Your task to perform on an android device: remove spam from my inbox in the gmail app Image 0: 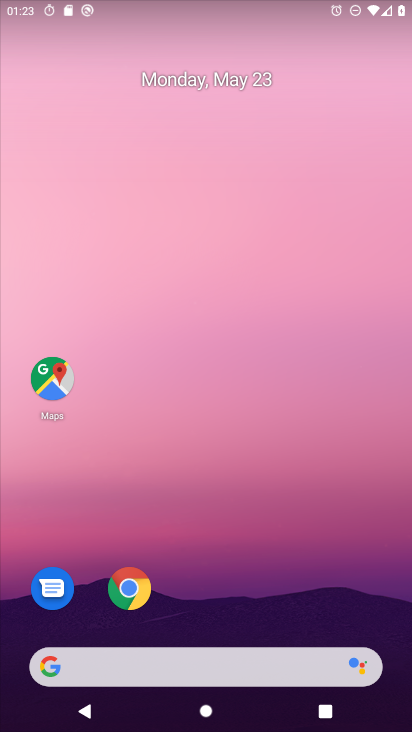
Step 0: drag from (254, 686) to (322, 154)
Your task to perform on an android device: remove spam from my inbox in the gmail app Image 1: 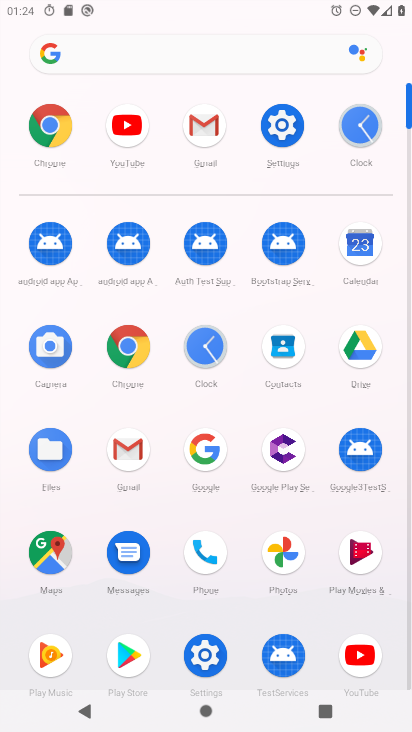
Step 1: click (205, 128)
Your task to perform on an android device: remove spam from my inbox in the gmail app Image 2: 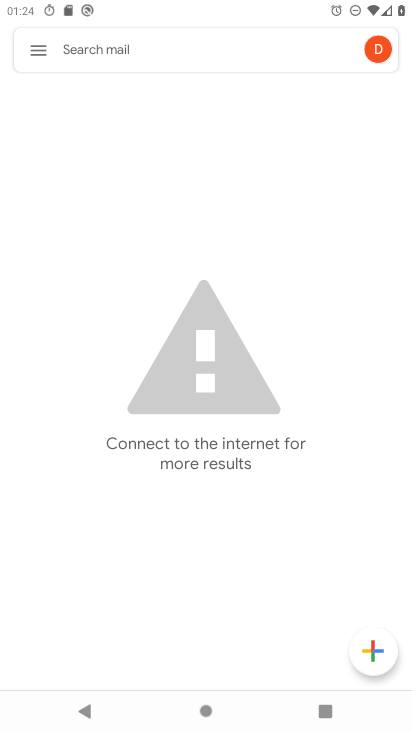
Step 2: click (35, 53)
Your task to perform on an android device: remove spam from my inbox in the gmail app Image 3: 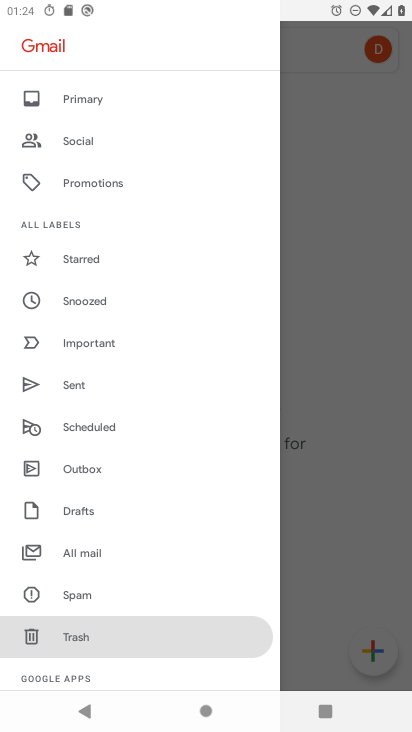
Step 3: click (93, 597)
Your task to perform on an android device: remove spam from my inbox in the gmail app Image 4: 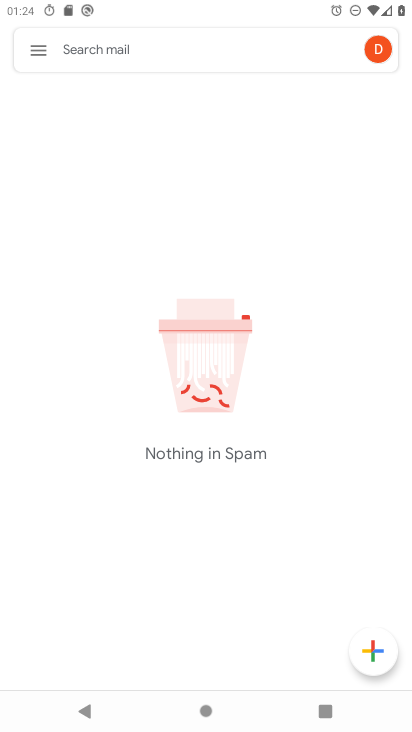
Step 4: task complete